Your task to perform on an android device: Show me the alarms in the clock app Image 0: 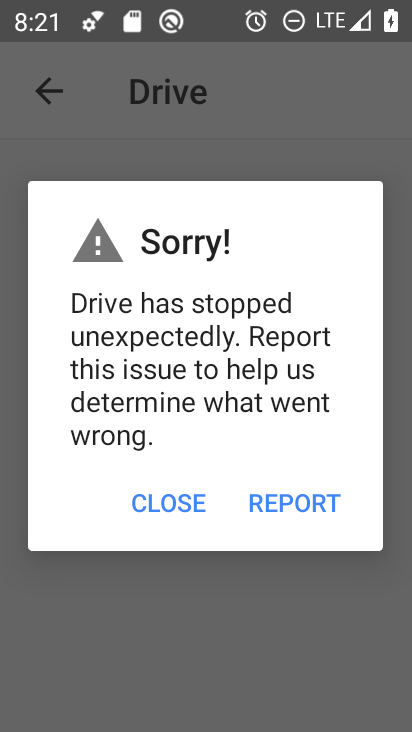
Step 0: press home button
Your task to perform on an android device: Show me the alarms in the clock app Image 1: 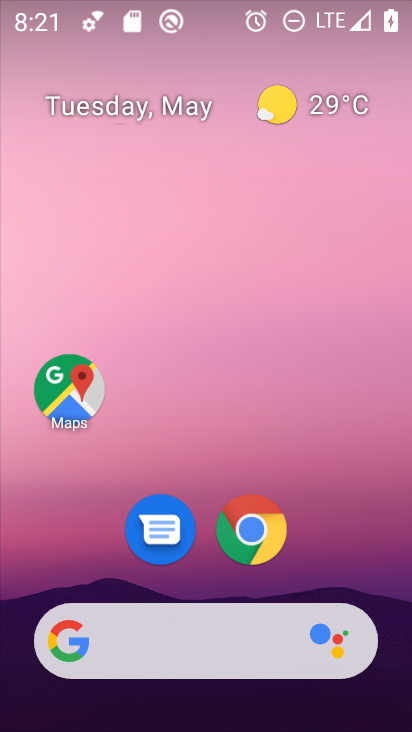
Step 1: drag from (399, 642) to (266, 137)
Your task to perform on an android device: Show me the alarms in the clock app Image 2: 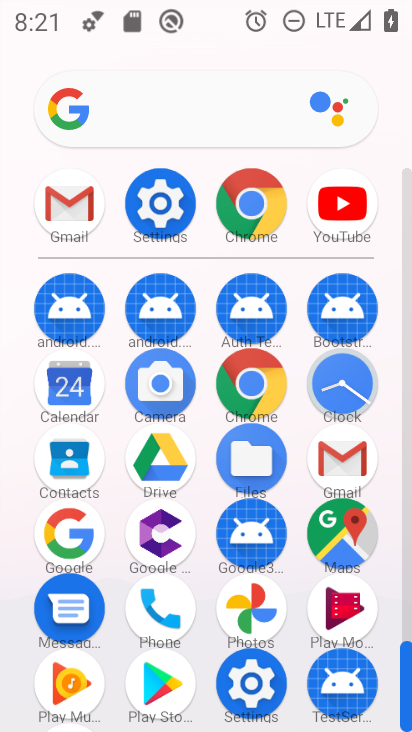
Step 2: click (342, 388)
Your task to perform on an android device: Show me the alarms in the clock app Image 3: 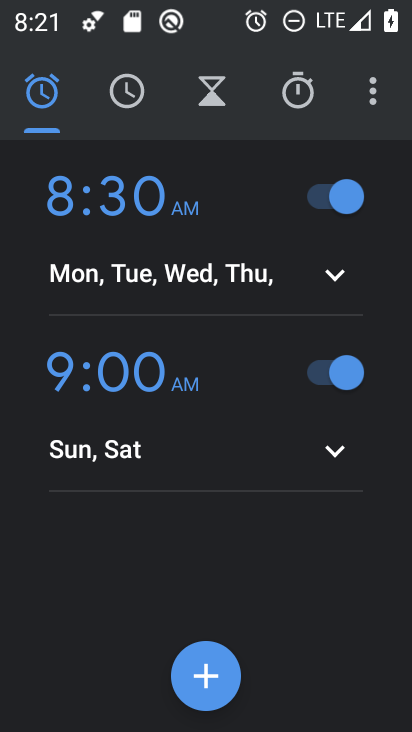
Step 3: click (373, 79)
Your task to perform on an android device: Show me the alarms in the clock app Image 4: 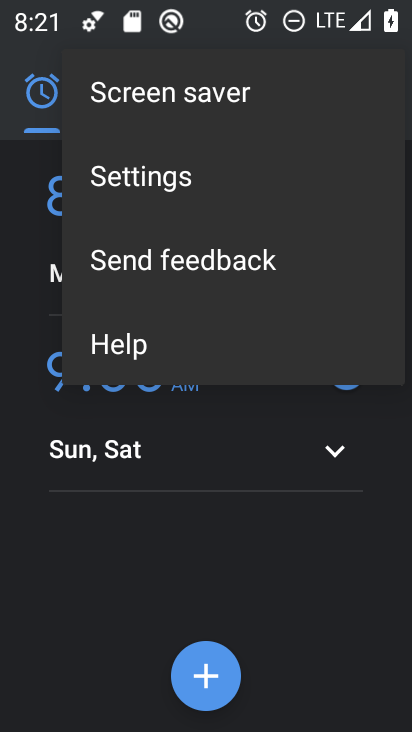
Step 4: click (225, 181)
Your task to perform on an android device: Show me the alarms in the clock app Image 5: 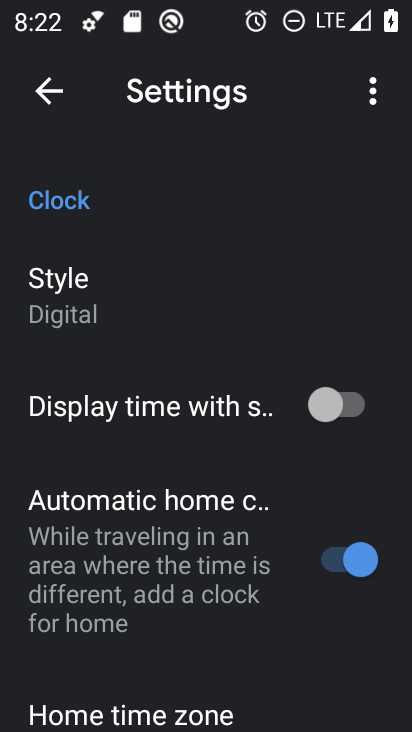
Step 5: task complete